Your task to perform on an android device: Open Android settings Image 0: 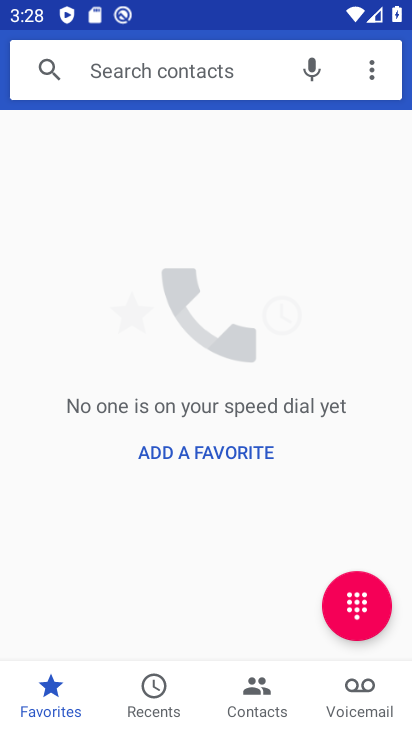
Step 0: press home button
Your task to perform on an android device: Open Android settings Image 1: 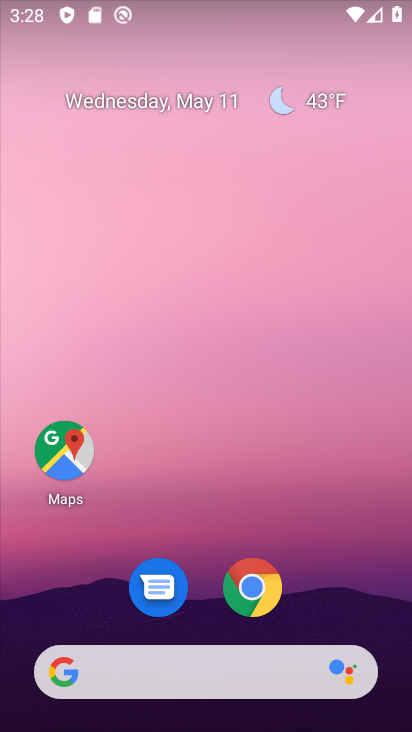
Step 1: drag from (261, 499) to (409, 154)
Your task to perform on an android device: Open Android settings Image 2: 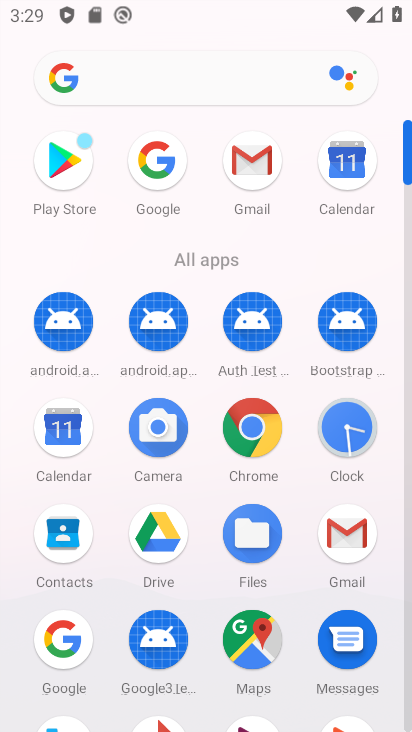
Step 2: drag from (186, 590) to (334, 288)
Your task to perform on an android device: Open Android settings Image 3: 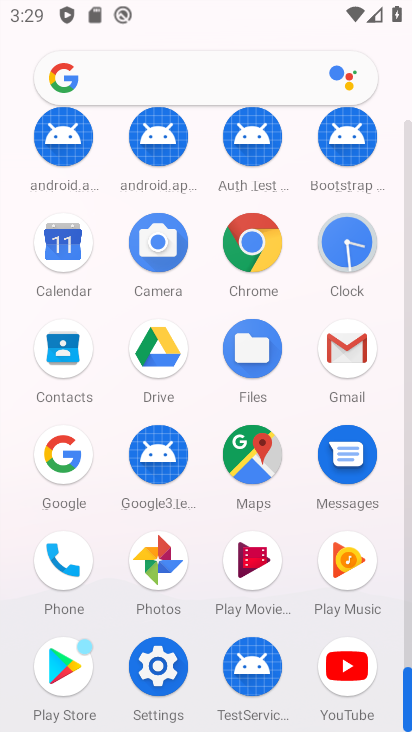
Step 3: click (177, 674)
Your task to perform on an android device: Open Android settings Image 4: 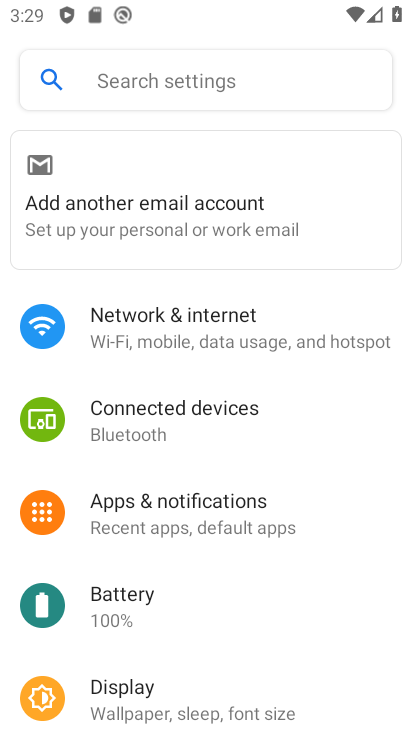
Step 4: task complete